Your task to perform on an android device: toggle airplane mode Image 0: 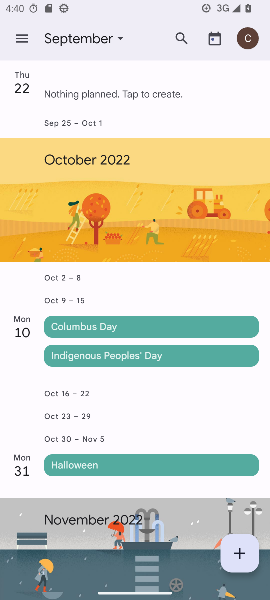
Step 0: press back button
Your task to perform on an android device: toggle airplane mode Image 1: 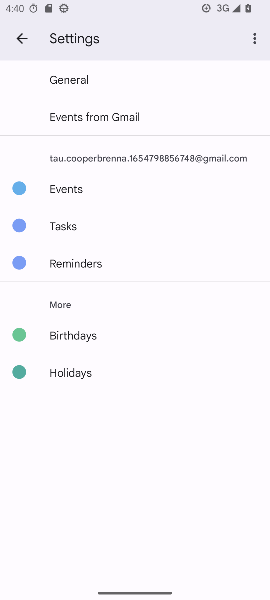
Step 1: click (19, 47)
Your task to perform on an android device: toggle airplane mode Image 2: 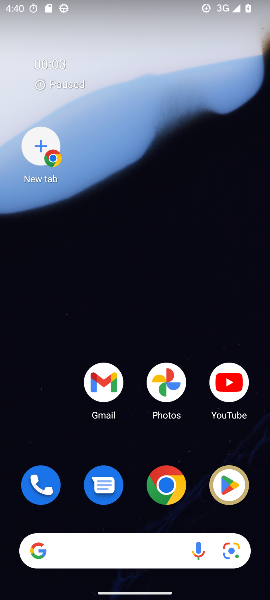
Step 2: drag from (170, 546) to (131, 181)
Your task to perform on an android device: toggle airplane mode Image 3: 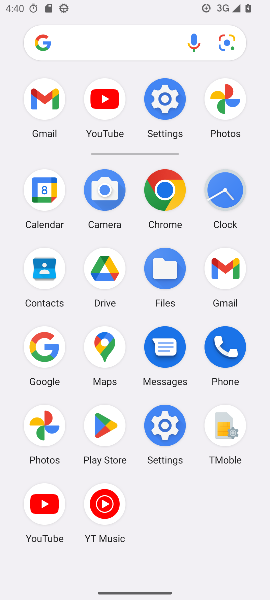
Step 3: click (168, 91)
Your task to perform on an android device: toggle airplane mode Image 4: 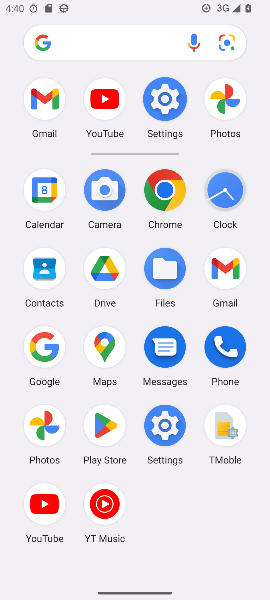
Step 4: click (168, 91)
Your task to perform on an android device: toggle airplane mode Image 5: 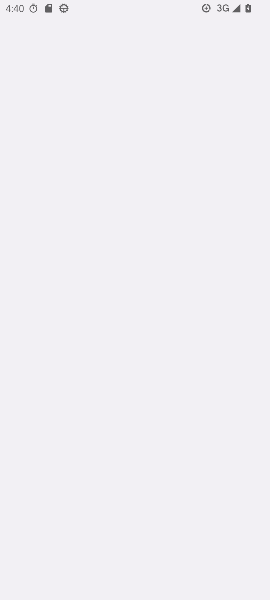
Step 5: click (169, 95)
Your task to perform on an android device: toggle airplane mode Image 6: 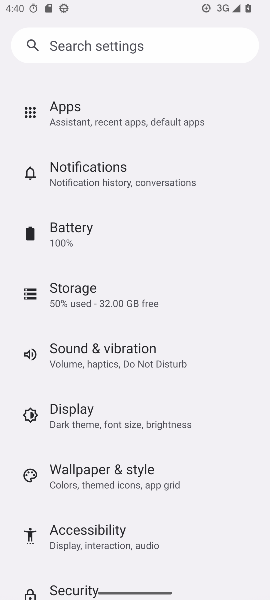
Step 6: click (170, 96)
Your task to perform on an android device: toggle airplane mode Image 7: 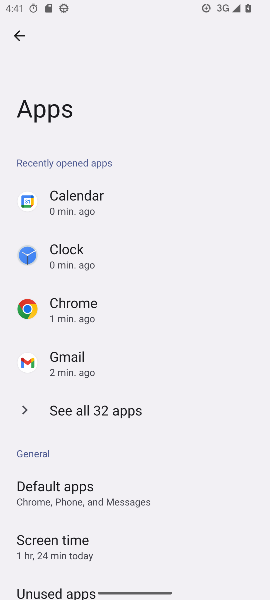
Step 7: drag from (144, 475) to (128, 134)
Your task to perform on an android device: toggle airplane mode Image 8: 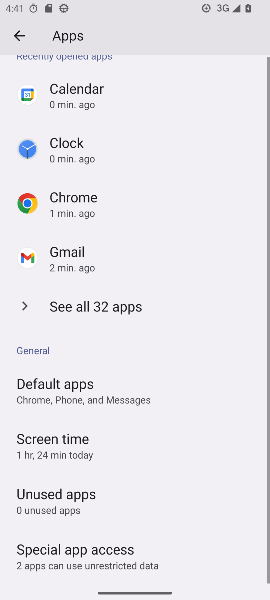
Step 8: drag from (151, 406) to (131, 47)
Your task to perform on an android device: toggle airplane mode Image 9: 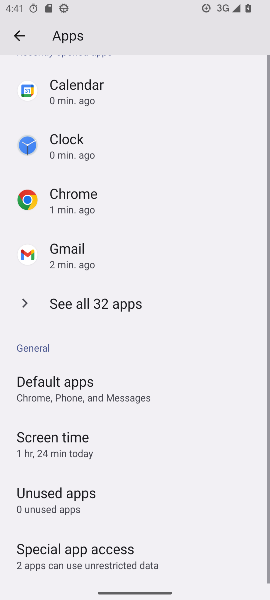
Step 9: drag from (154, 373) to (104, 3)
Your task to perform on an android device: toggle airplane mode Image 10: 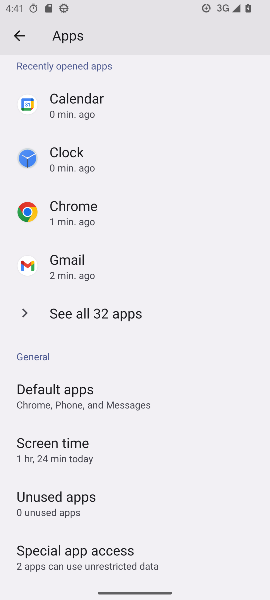
Step 10: click (20, 32)
Your task to perform on an android device: toggle airplane mode Image 11: 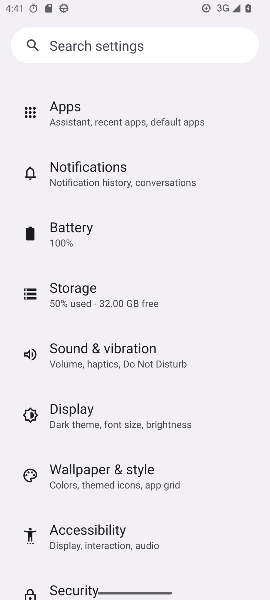
Step 11: drag from (73, 107) to (81, 514)
Your task to perform on an android device: toggle airplane mode Image 12: 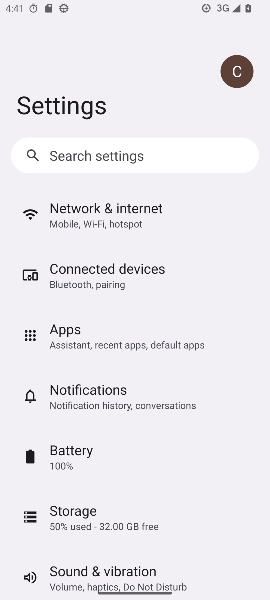
Step 12: click (83, 217)
Your task to perform on an android device: toggle airplane mode Image 13: 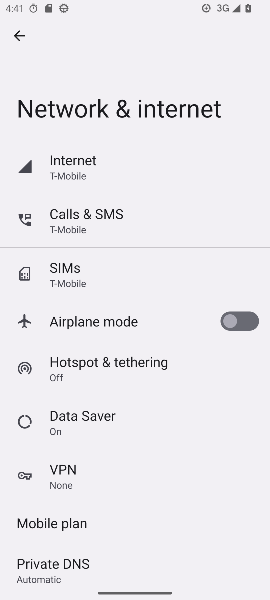
Step 13: click (228, 318)
Your task to perform on an android device: toggle airplane mode Image 14: 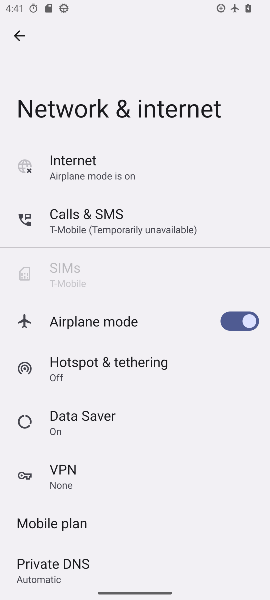
Step 14: task complete